Your task to perform on an android device: Go to Android settings Image 0: 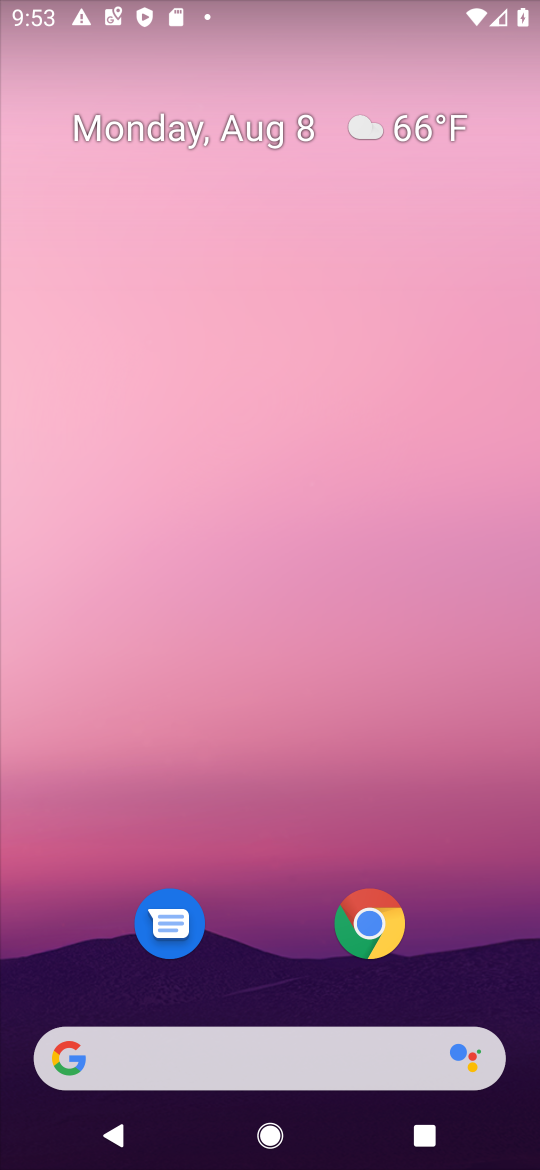
Step 0: drag from (58, 1130) to (316, 116)
Your task to perform on an android device: Go to Android settings Image 1: 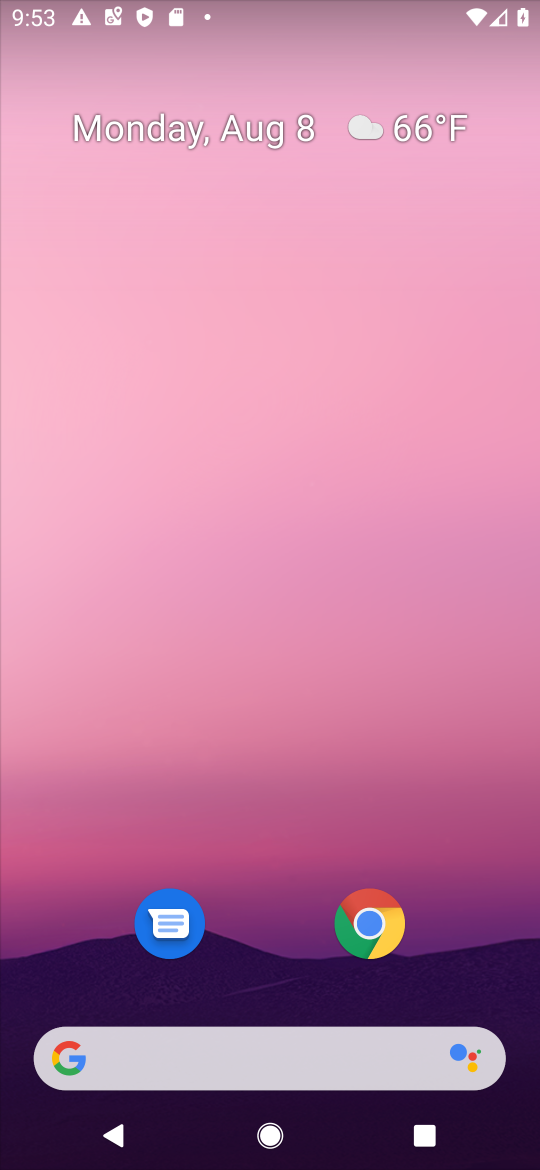
Step 1: drag from (36, 1134) to (279, 440)
Your task to perform on an android device: Go to Android settings Image 2: 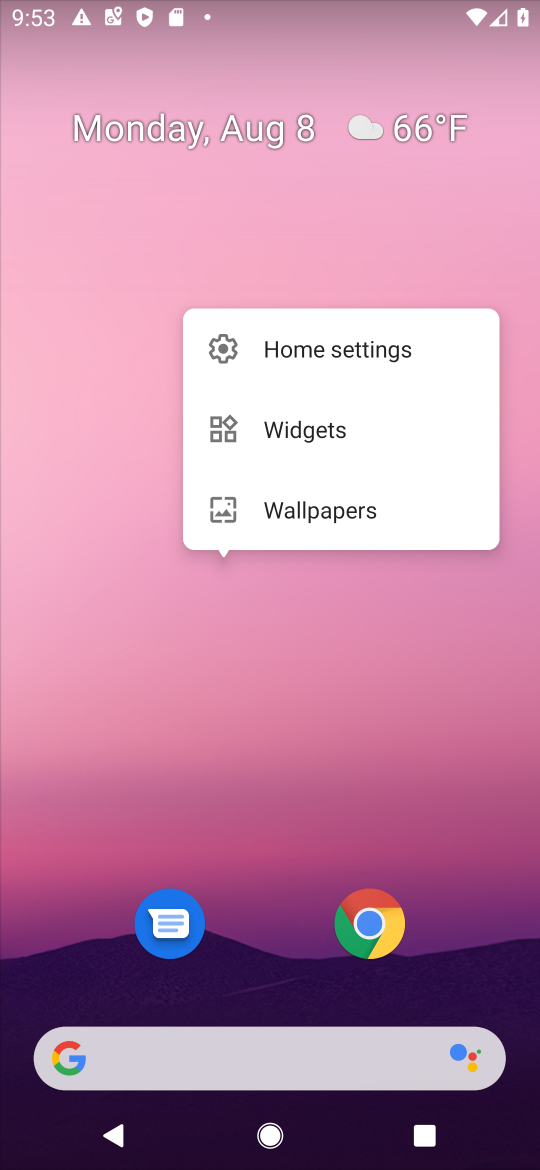
Step 2: drag from (54, 1108) to (254, 503)
Your task to perform on an android device: Go to Android settings Image 3: 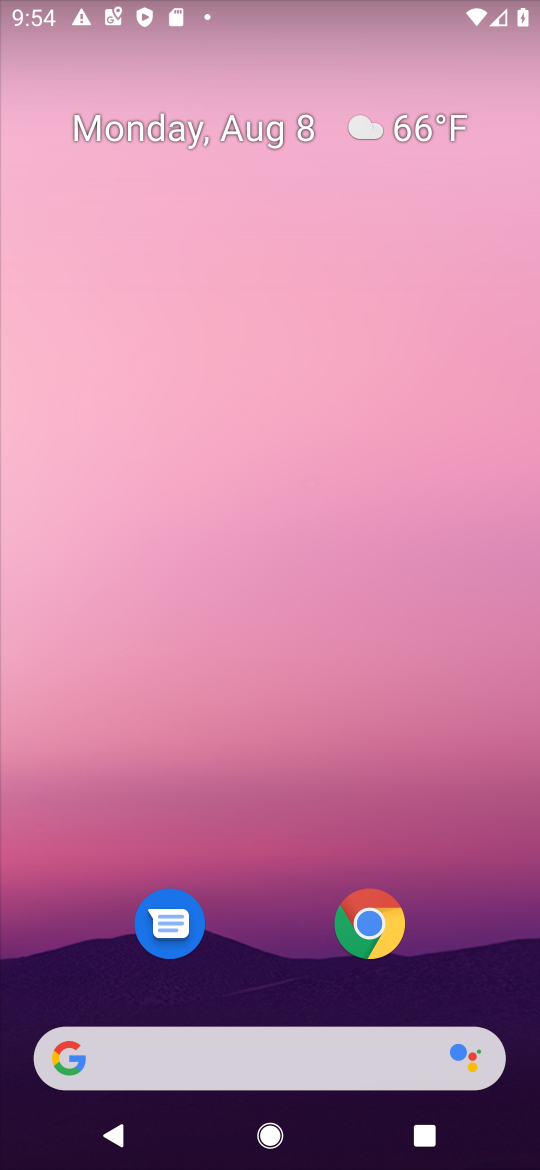
Step 3: drag from (28, 1103) to (312, 175)
Your task to perform on an android device: Go to Android settings Image 4: 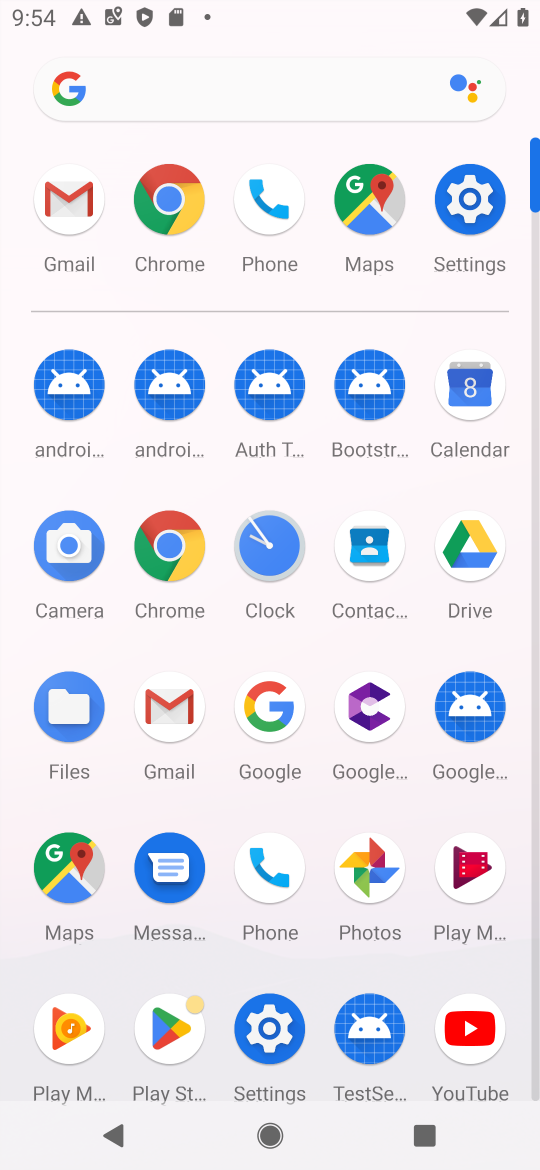
Step 4: click (281, 1037)
Your task to perform on an android device: Go to Android settings Image 5: 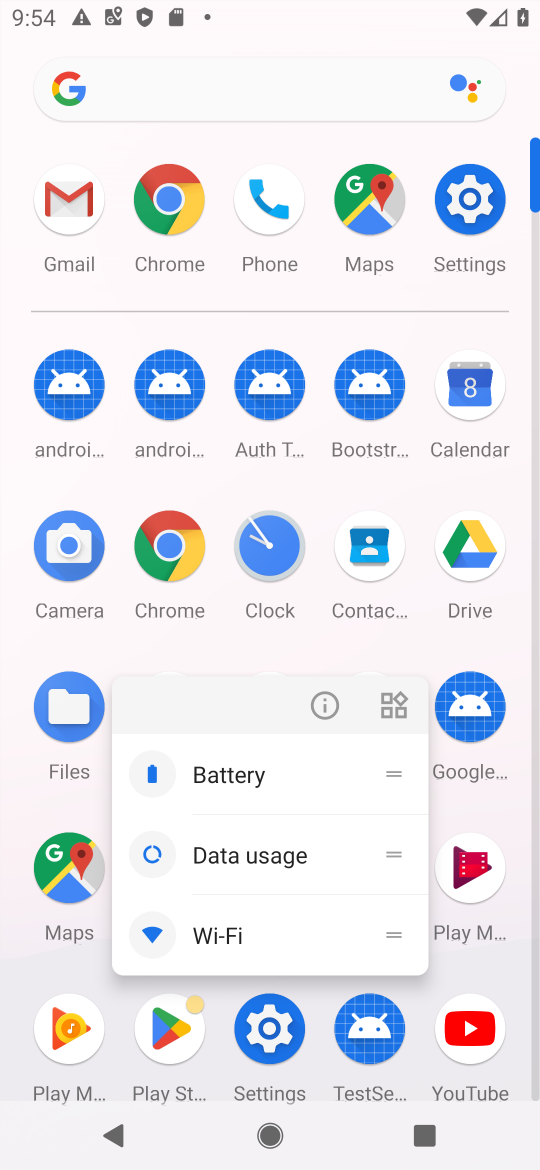
Step 5: click (281, 1037)
Your task to perform on an android device: Go to Android settings Image 6: 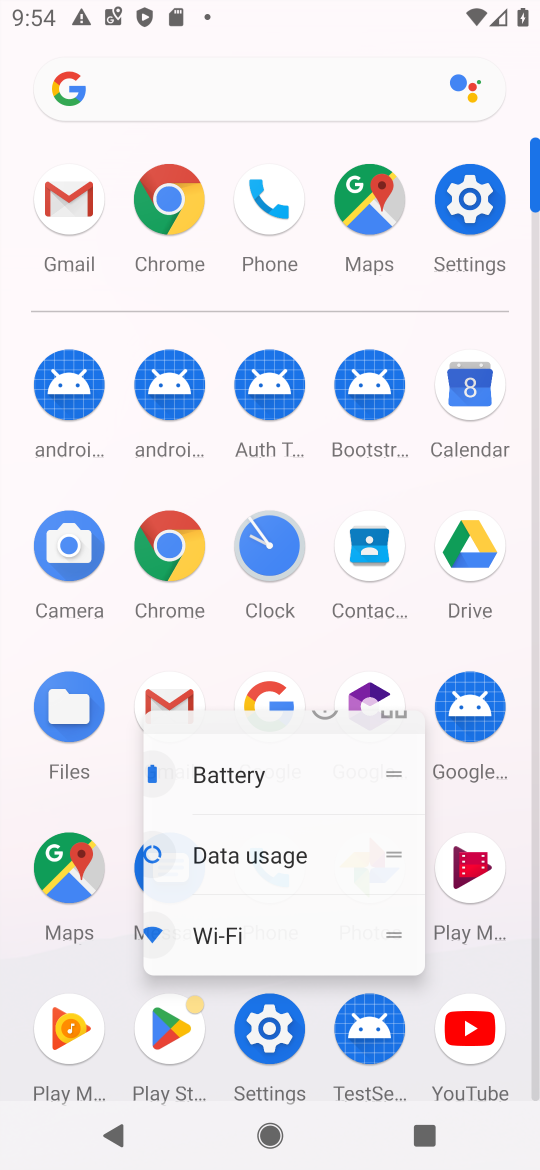
Step 6: click (281, 1037)
Your task to perform on an android device: Go to Android settings Image 7: 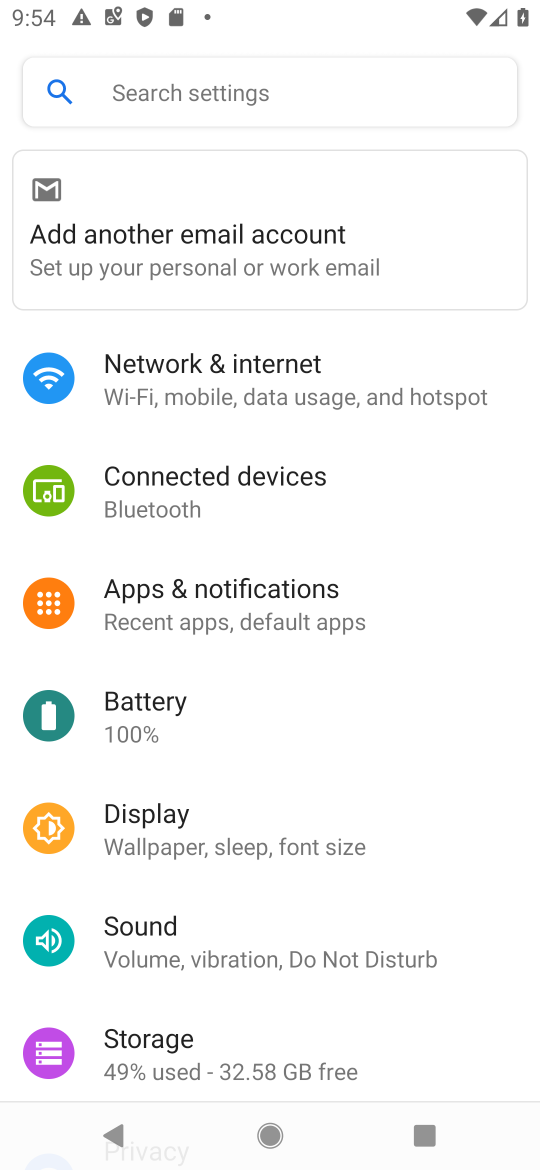
Step 7: drag from (460, 1091) to (502, 479)
Your task to perform on an android device: Go to Android settings Image 8: 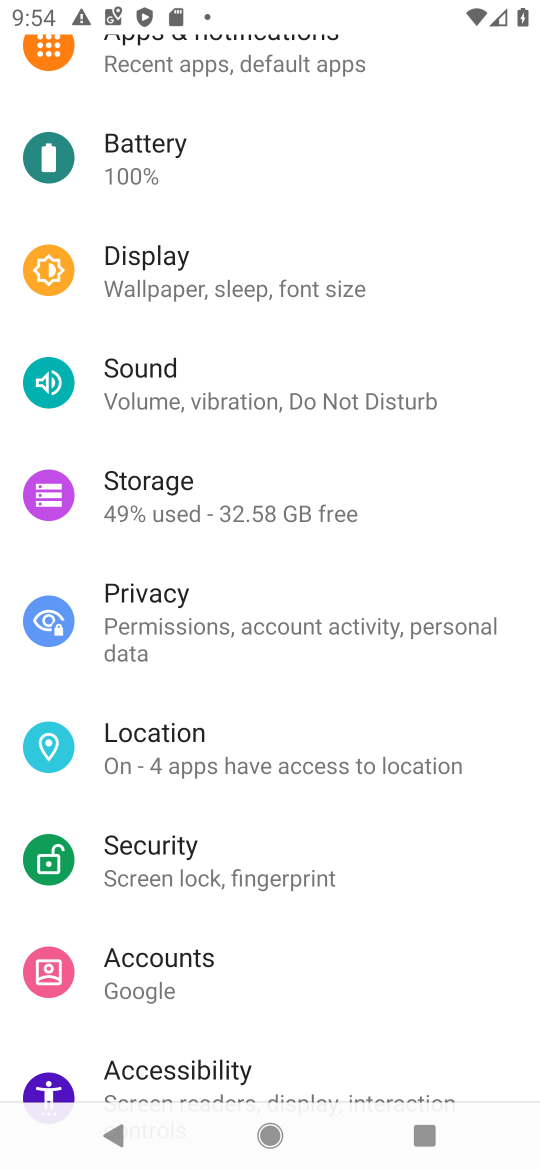
Step 8: drag from (488, 1040) to (525, 446)
Your task to perform on an android device: Go to Android settings Image 9: 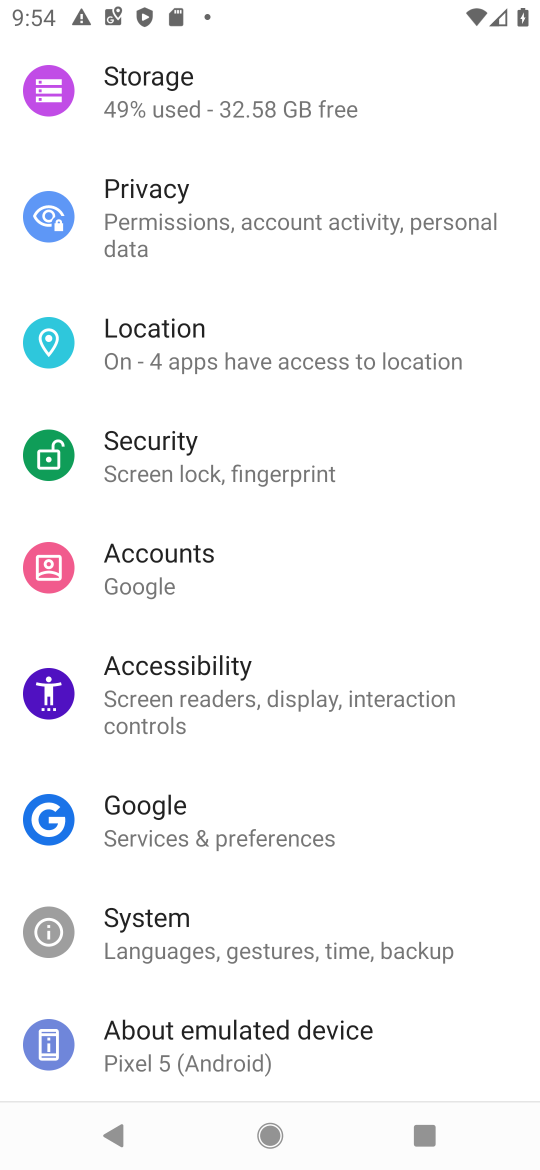
Step 9: click (165, 1038)
Your task to perform on an android device: Go to Android settings Image 10: 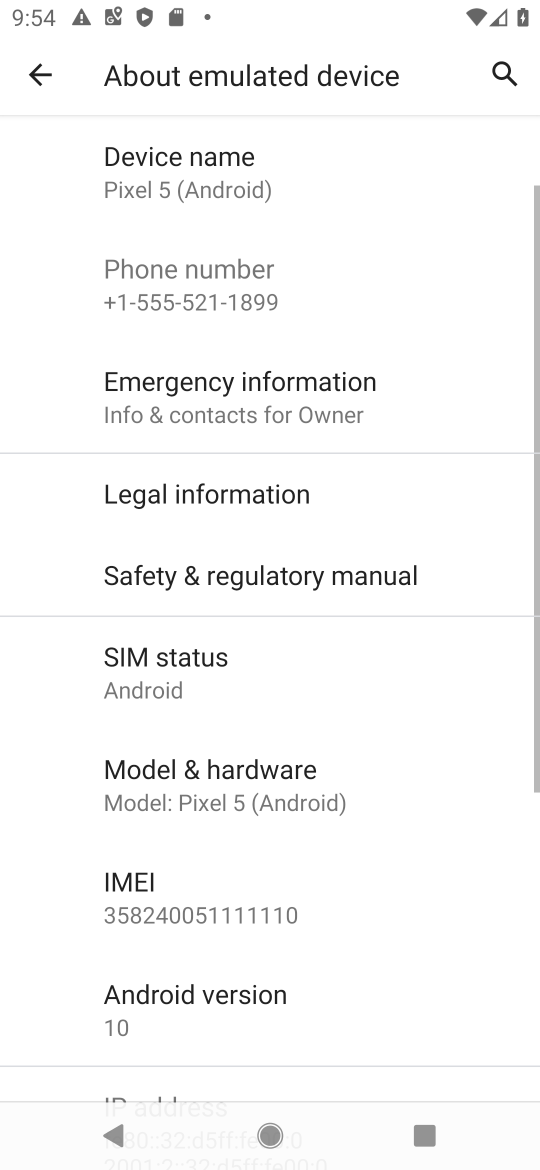
Step 10: click (185, 1008)
Your task to perform on an android device: Go to Android settings Image 11: 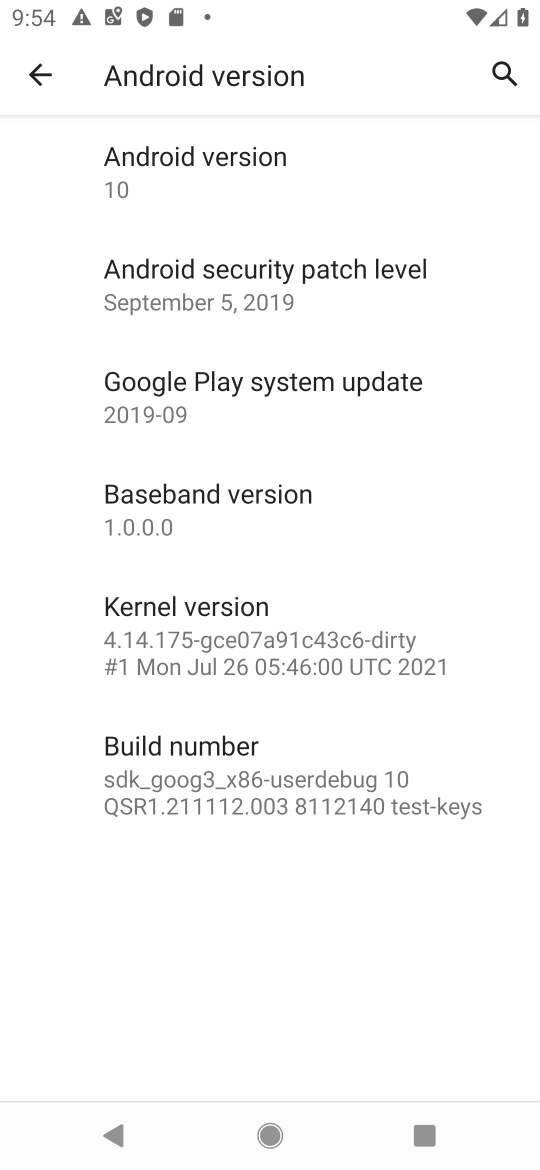
Step 11: task complete